Your task to perform on an android device: toggle notifications settings in the gmail app Image 0: 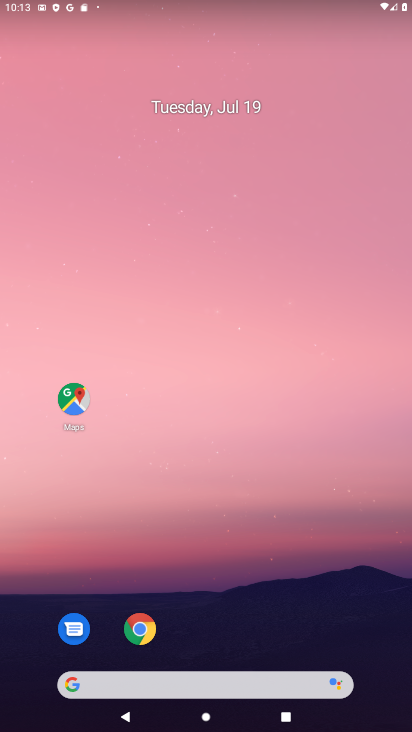
Step 0: drag from (278, 641) to (306, 159)
Your task to perform on an android device: toggle notifications settings in the gmail app Image 1: 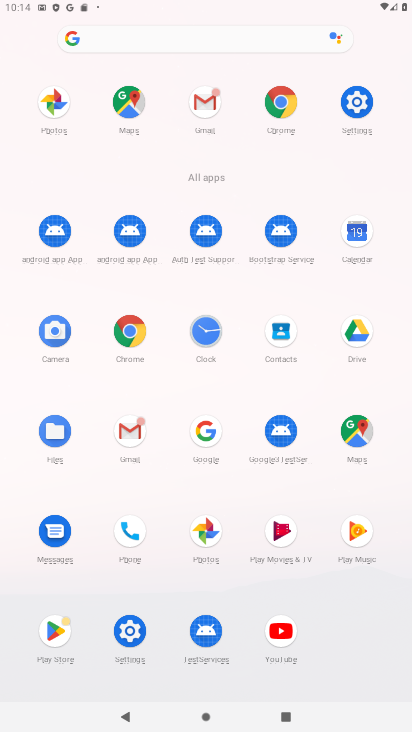
Step 1: click (123, 437)
Your task to perform on an android device: toggle notifications settings in the gmail app Image 2: 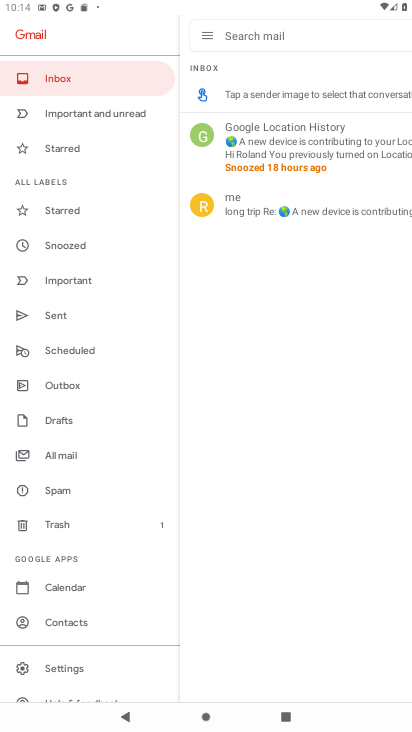
Step 2: click (74, 663)
Your task to perform on an android device: toggle notifications settings in the gmail app Image 3: 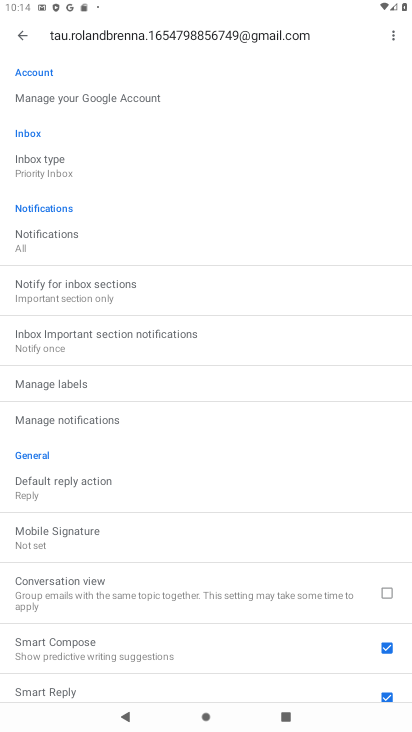
Step 3: click (116, 422)
Your task to perform on an android device: toggle notifications settings in the gmail app Image 4: 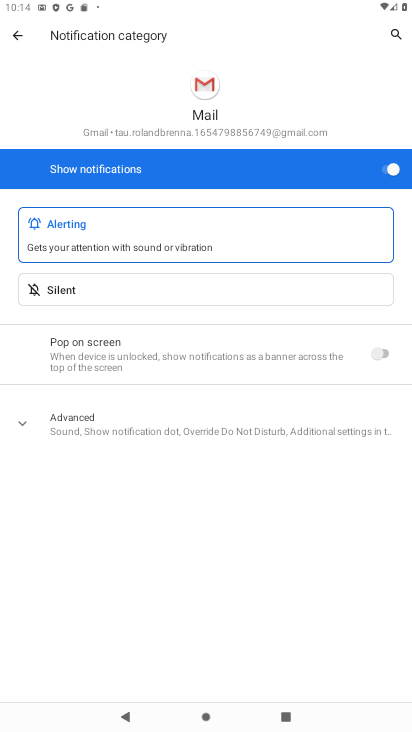
Step 4: click (379, 168)
Your task to perform on an android device: toggle notifications settings in the gmail app Image 5: 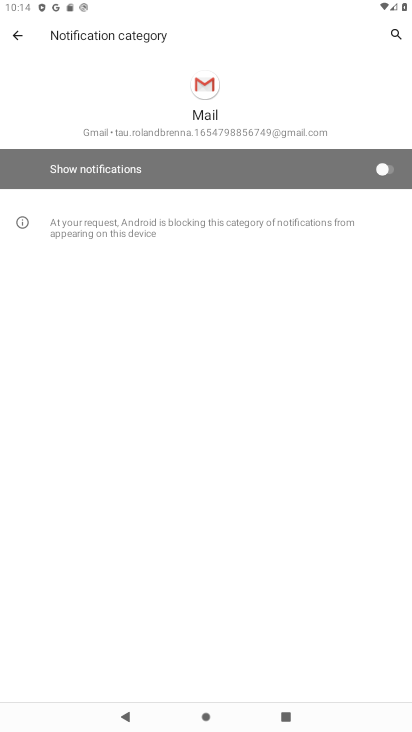
Step 5: task complete